Your task to perform on an android device: Open Amazon Image 0: 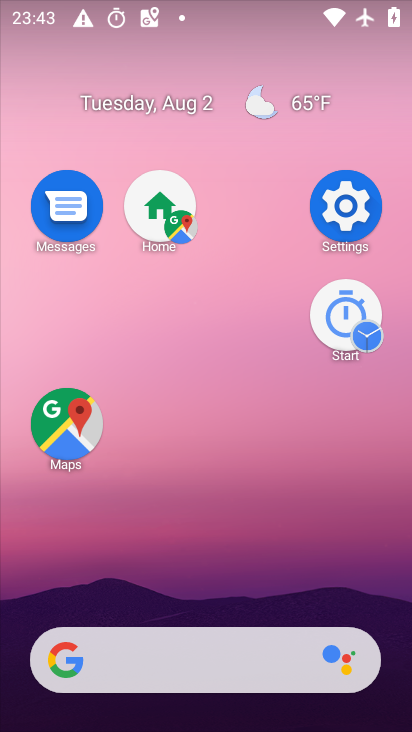
Step 0: drag from (301, 667) to (268, 202)
Your task to perform on an android device: Open Amazon Image 1: 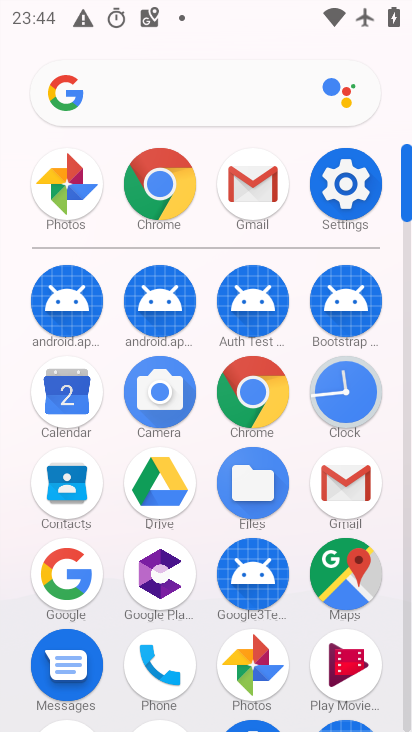
Step 1: click (243, 386)
Your task to perform on an android device: Open Amazon Image 2: 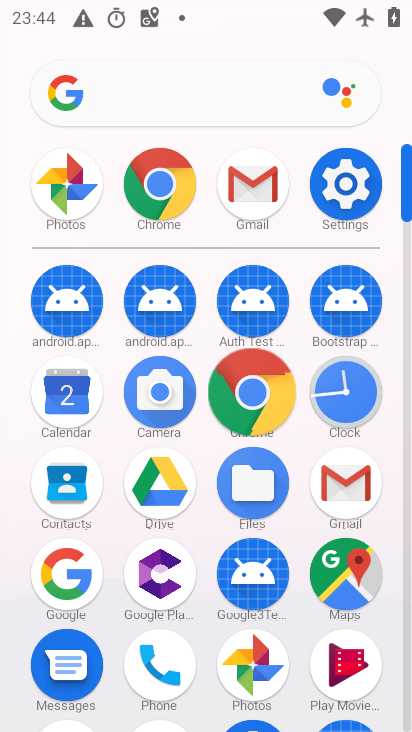
Step 2: click (245, 391)
Your task to perform on an android device: Open Amazon Image 3: 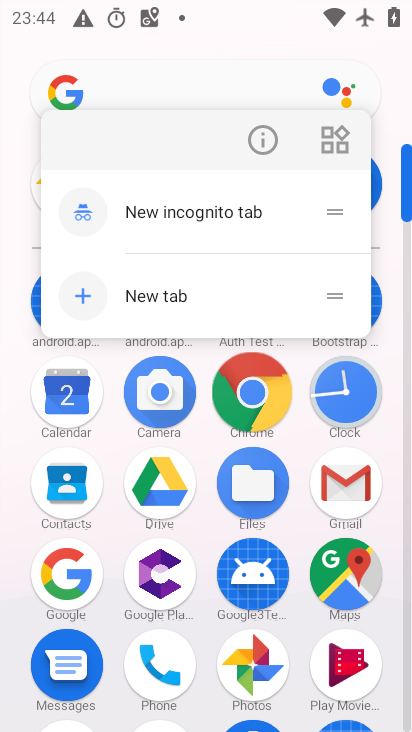
Step 3: click (253, 411)
Your task to perform on an android device: Open Amazon Image 4: 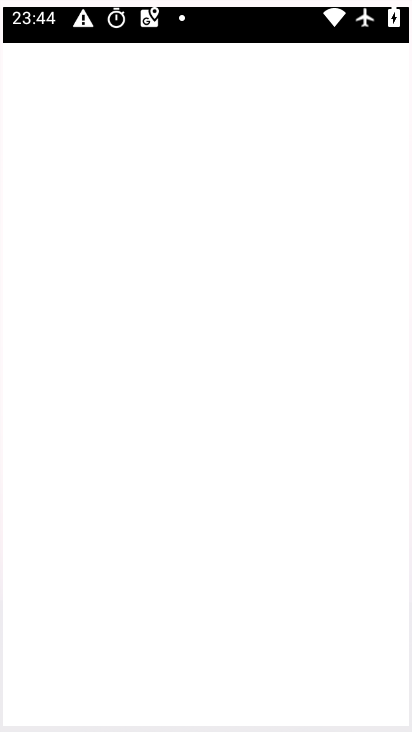
Step 4: click (253, 411)
Your task to perform on an android device: Open Amazon Image 5: 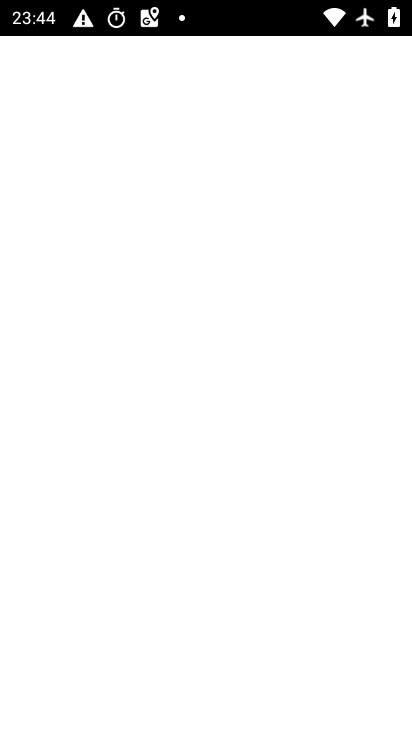
Step 5: click (254, 412)
Your task to perform on an android device: Open Amazon Image 6: 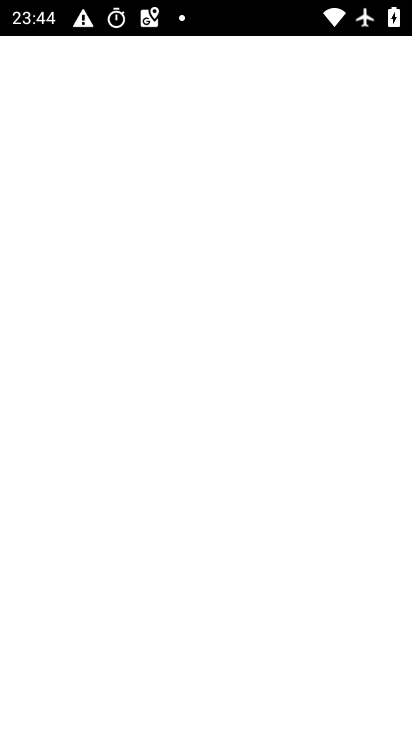
Step 6: click (254, 412)
Your task to perform on an android device: Open Amazon Image 7: 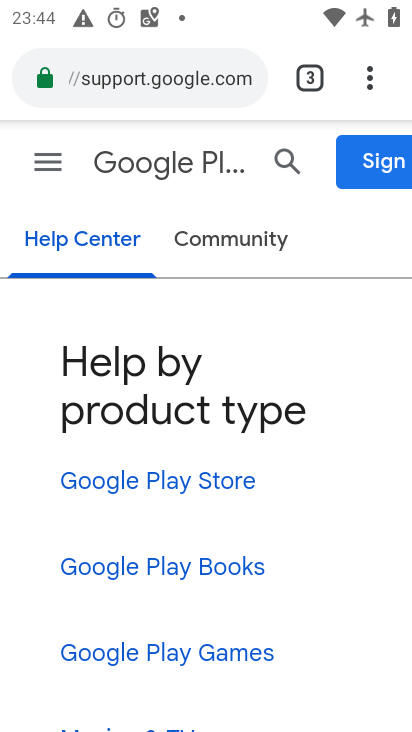
Step 7: drag from (371, 78) to (73, 152)
Your task to perform on an android device: Open Amazon Image 8: 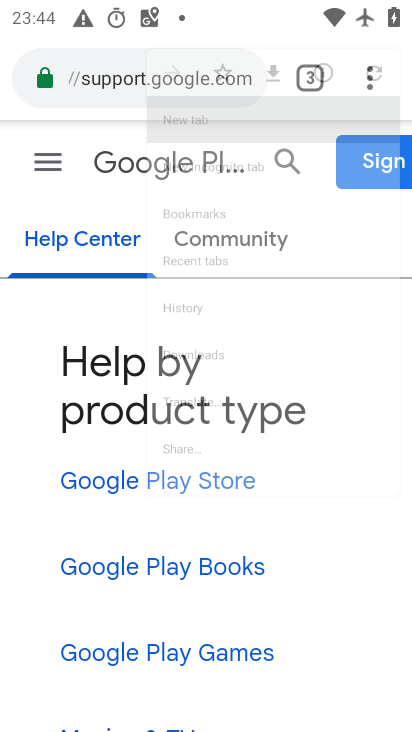
Step 8: click (79, 151)
Your task to perform on an android device: Open Amazon Image 9: 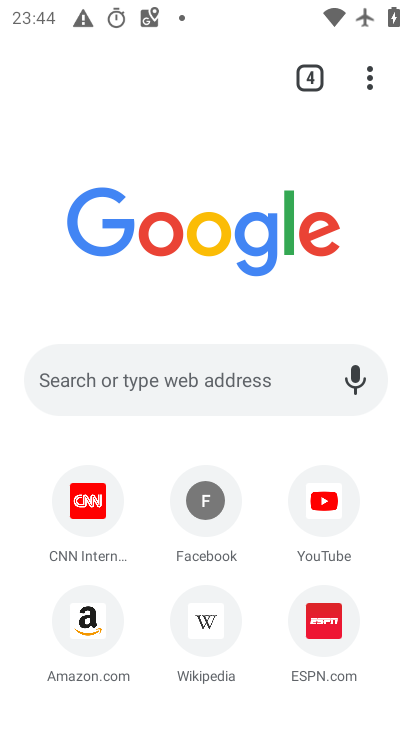
Step 9: click (92, 626)
Your task to perform on an android device: Open Amazon Image 10: 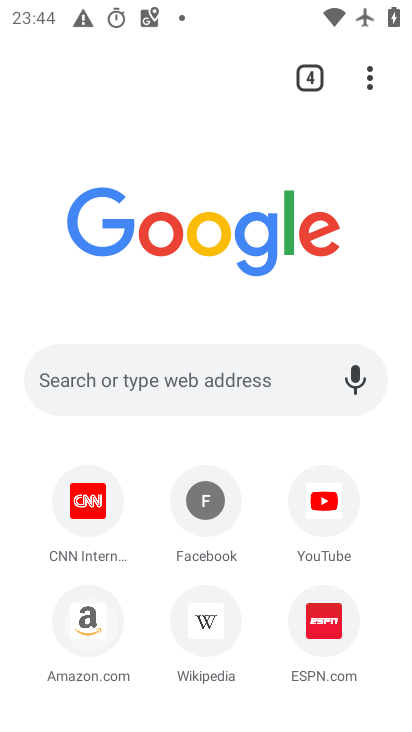
Step 10: click (85, 624)
Your task to perform on an android device: Open Amazon Image 11: 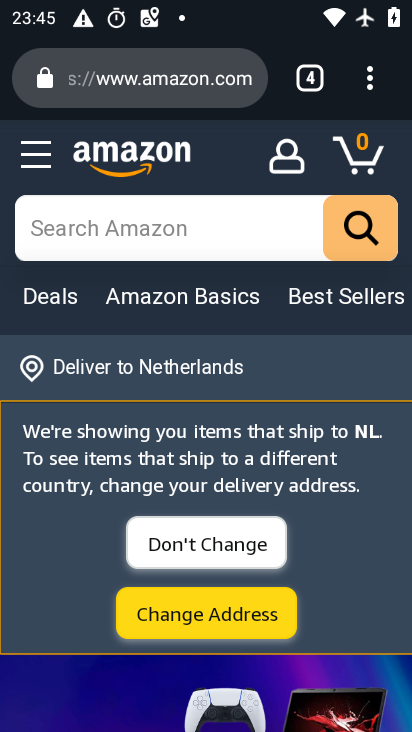
Step 11: task complete